Your task to perform on an android device: Go to wifi settings Image 0: 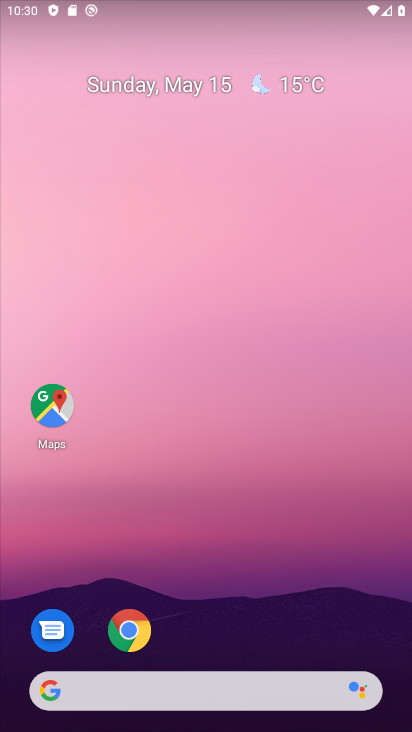
Step 0: drag from (221, 723) to (175, 134)
Your task to perform on an android device: Go to wifi settings Image 1: 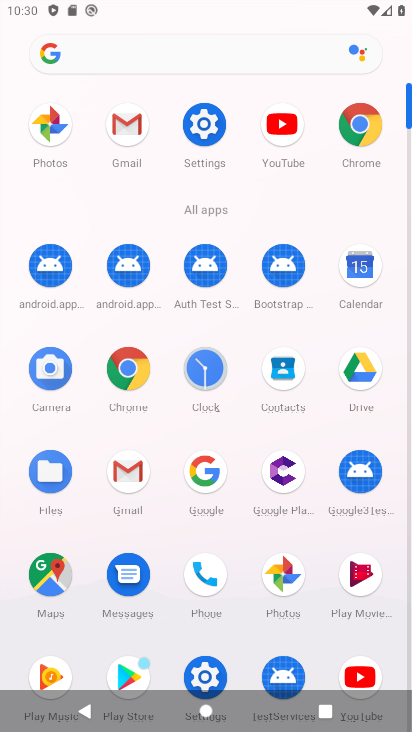
Step 1: click (196, 119)
Your task to perform on an android device: Go to wifi settings Image 2: 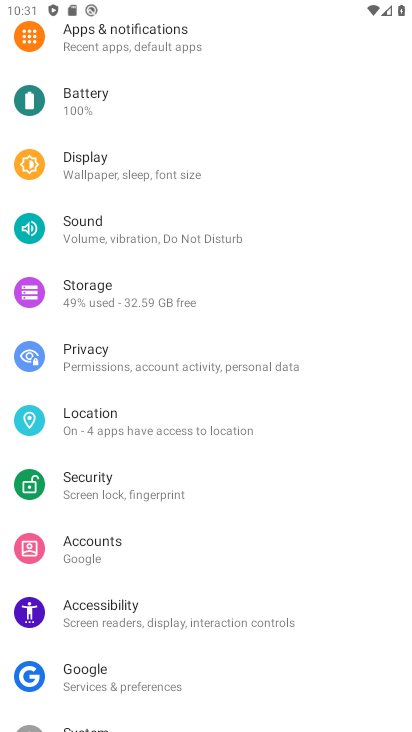
Step 2: drag from (268, 147) to (263, 586)
Your task to perform on an android device: Go to wifi settings Image 3: 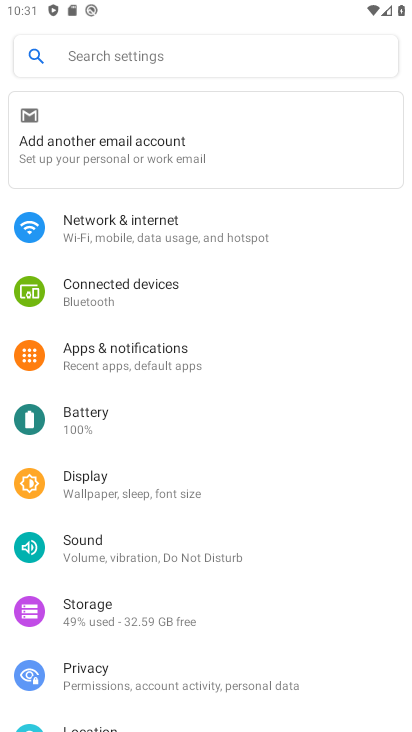
Step 3: click (115, 231)
Your task to perform on an android device: Go to wifi settings Image 4: 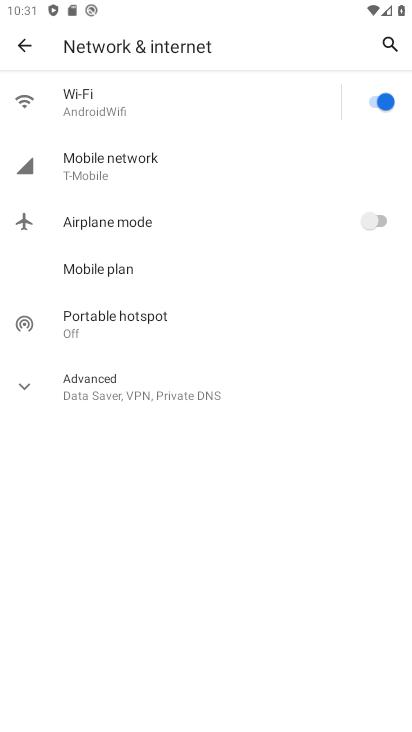
Step 4: click (80, 100)
Your task to perform on an android device: Go to wifi settings Image 5: 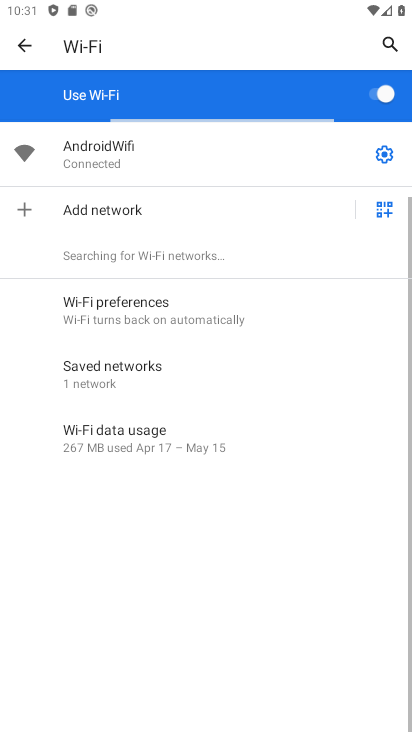
Step 5: task complete